Your task to perform on an android device: toggle sleep mode Image 0: 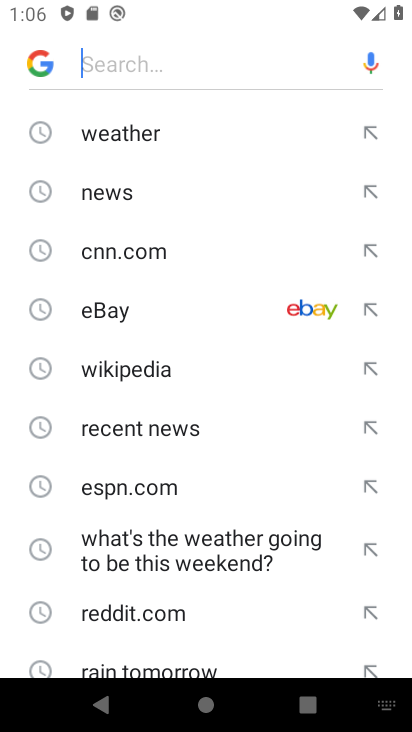
Step 0: press home button
Your task to perform on an android device: toggle sleep mode Image 1: 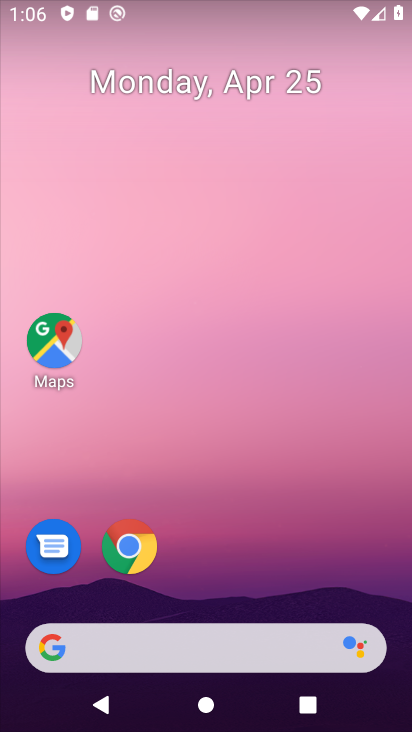
Step 1: drag from (159, 402) to (408, 347)
Your task to perform on an android device: toggle sleep mode Image 2: 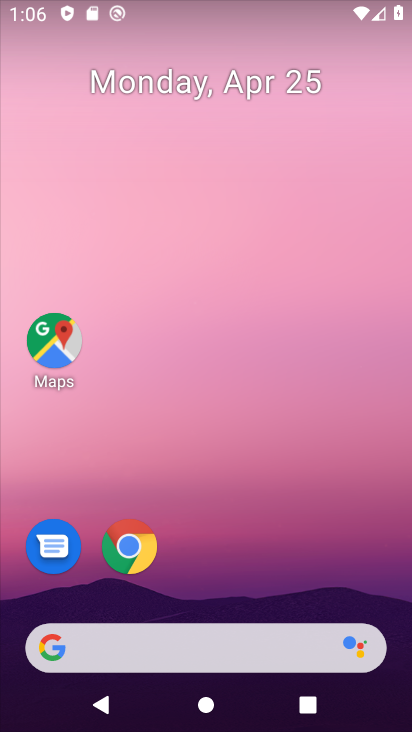
Step 2: drag from (189, 614) to (361, 58)
Your task to perform on an android device: toggle sleep mode Image 3: 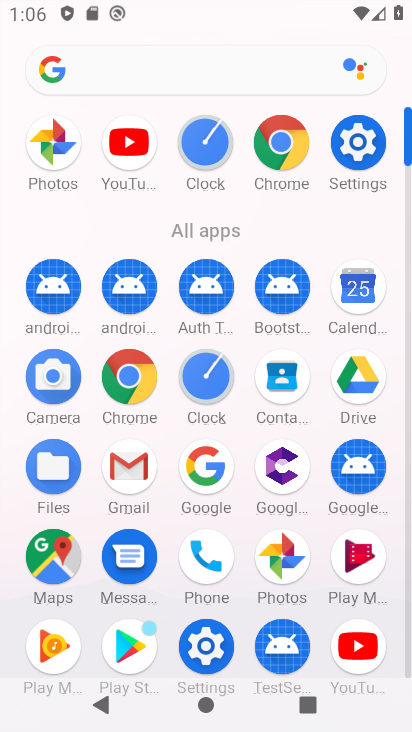
Step 3: click (352, 147)
Your task to perform on an android device: toggle sleep mode Image 4: 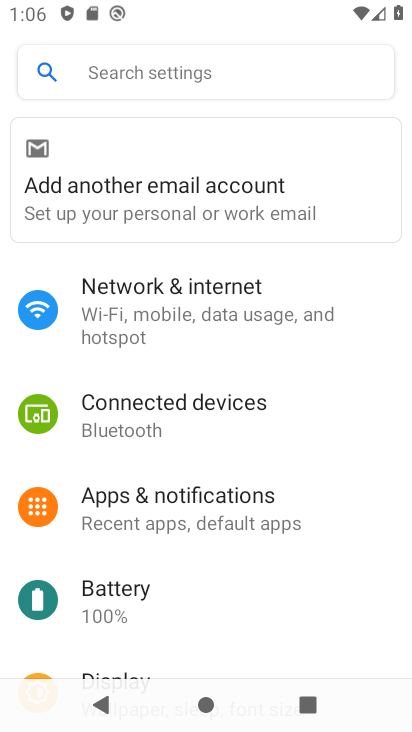
Step 4: task complete